Your task to perform on an android device: change timer sound Image 0: 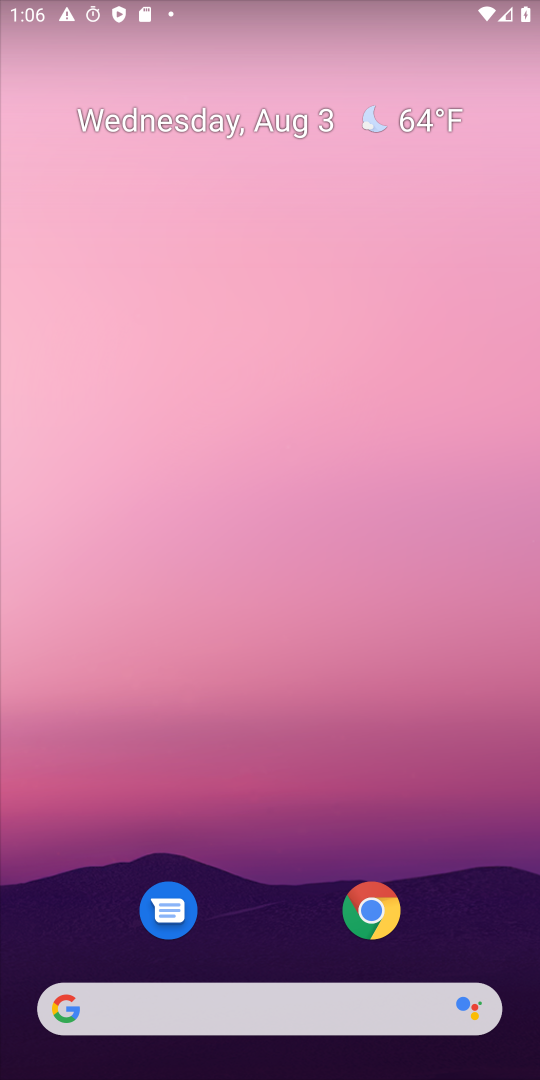
Step 0: drag from (250, 892) to (366, 0)
Your task to perform on an android device: change timer sound Image 1: 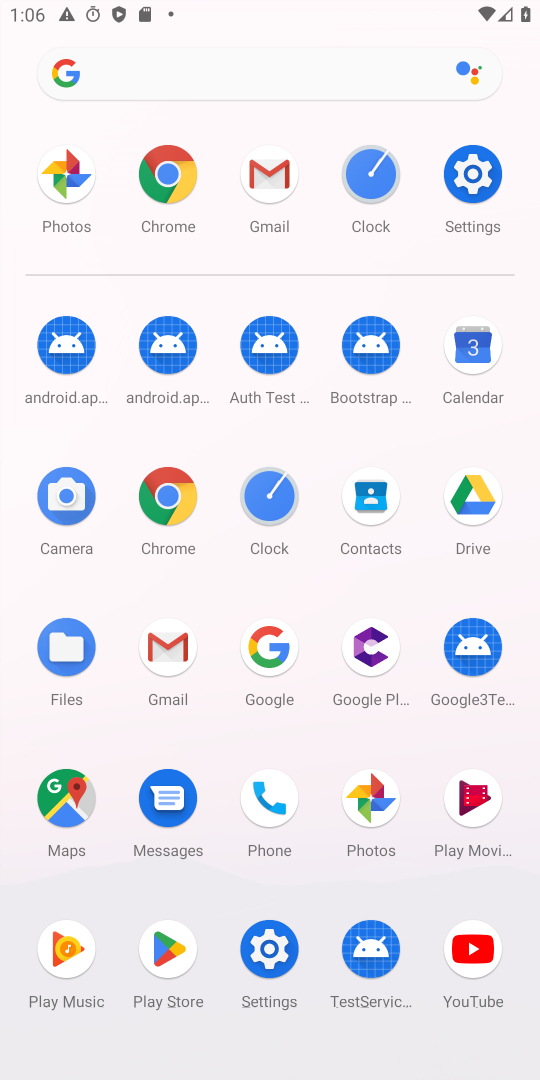
Step 1: click (371, 165)
Your task to perform on an android device: change timer sound Image 2: 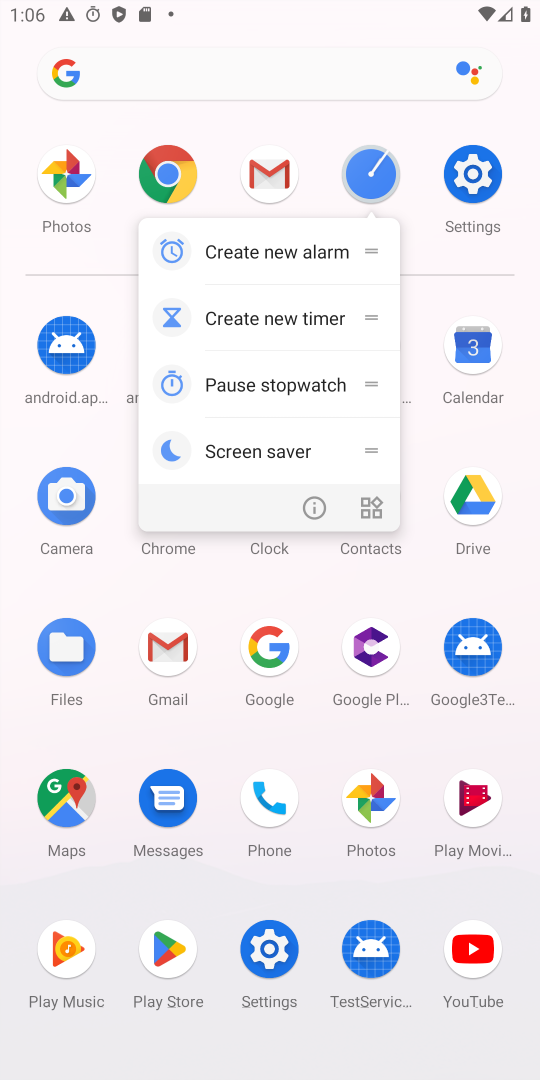
Step 2: click (371, 165)
Your task to perform on an android device: change timer sound Image 3: 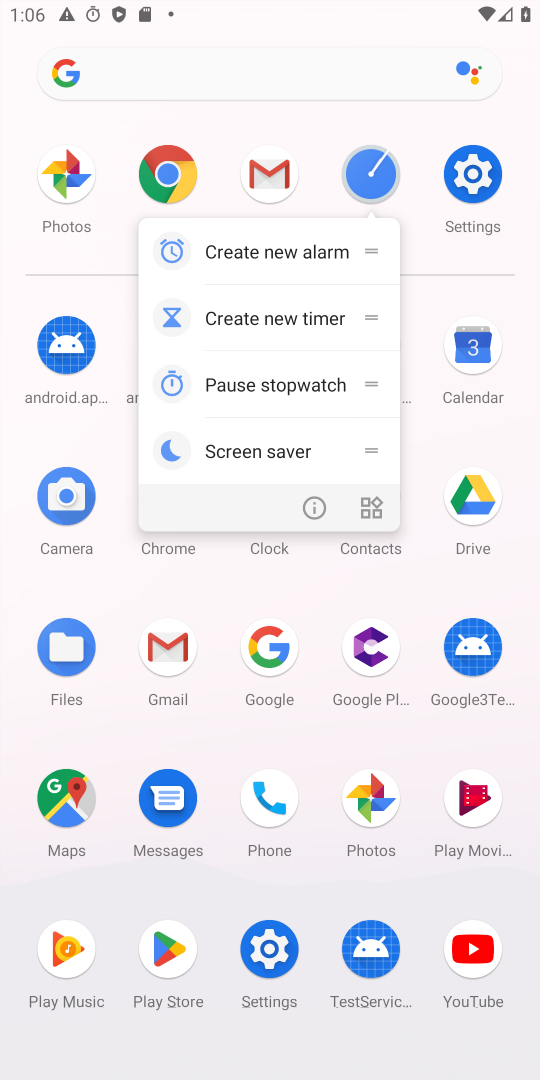
Step 3: click (371, 165)
Your task to perform on an android device: change timer sound Image 4: 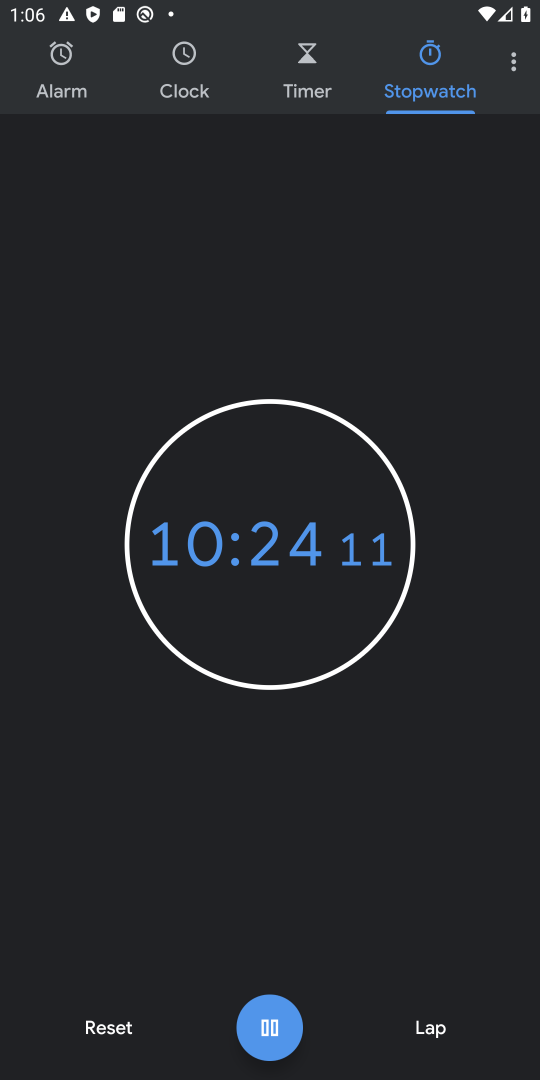
Step 4: click (516, 51)
Your task to perform on an android device: change timer sound Image 5: 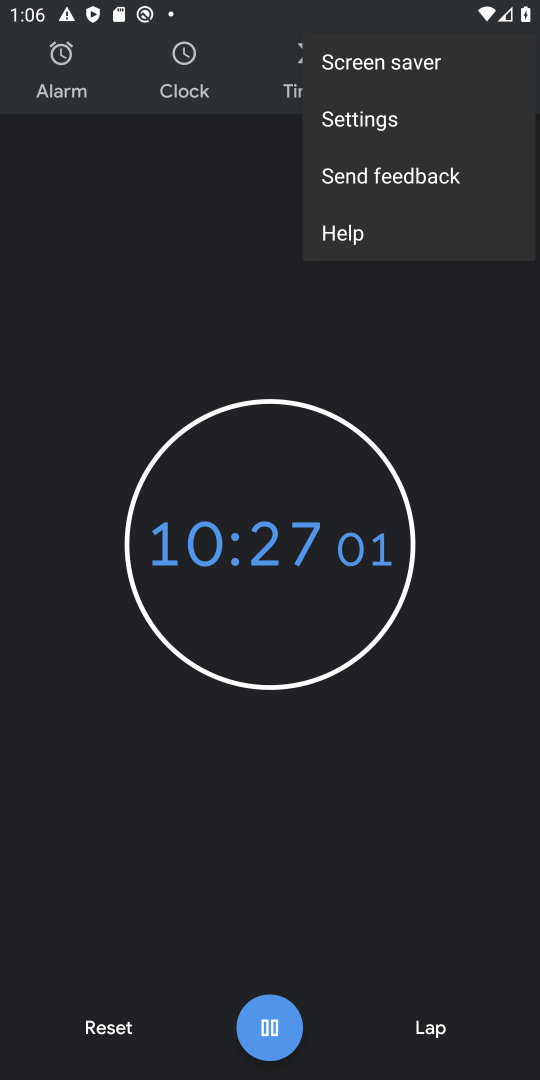
Step 5: click (366, 118)
Your task to perform on an android device: change timer sound Image 6: 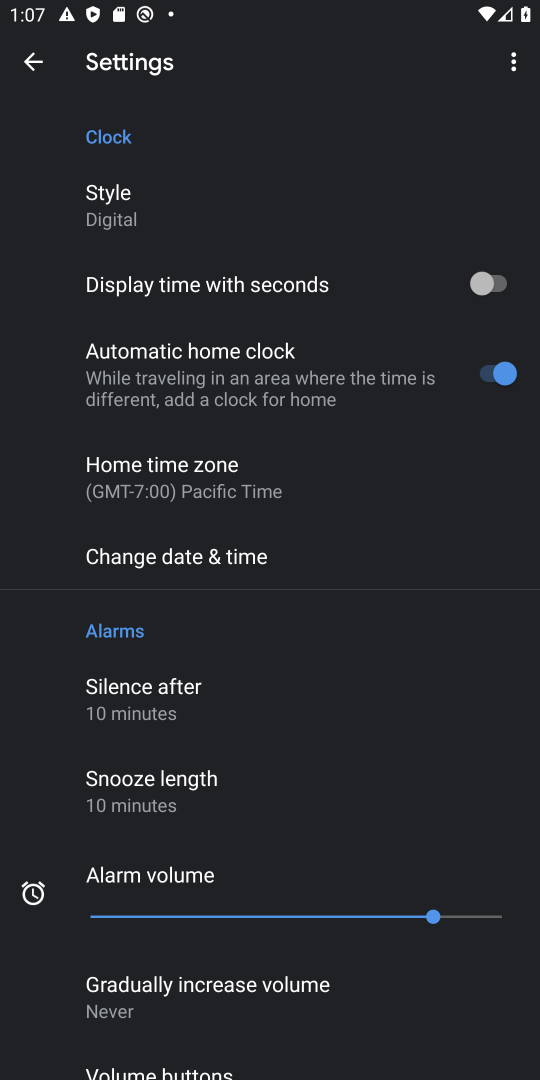
Step 6: drag from (235, 744) to (345, 31)
Your task to perform on an android device: change timer sound Image 7: 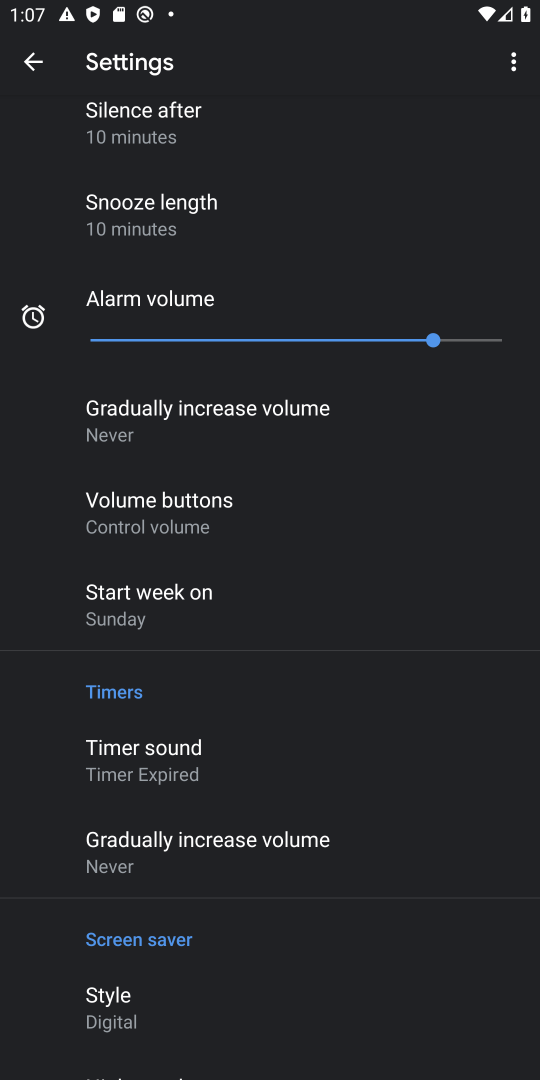
Step 7: click (182, 767)
Your task to perform on an android device: change timer sound Image 8: 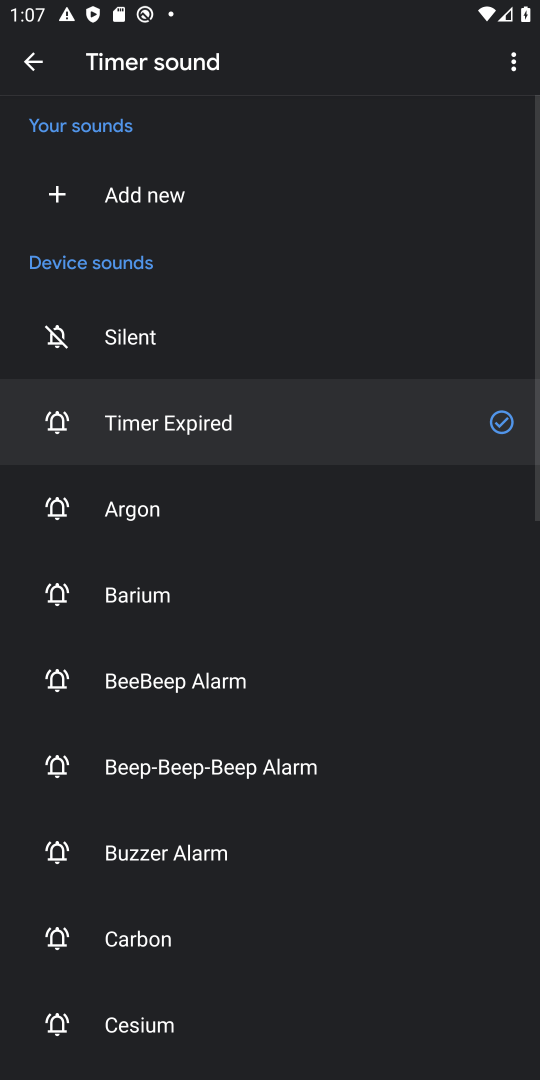
Step 8: click (186, 506)
Your task to perform on an android device: change timer sound Image 9: 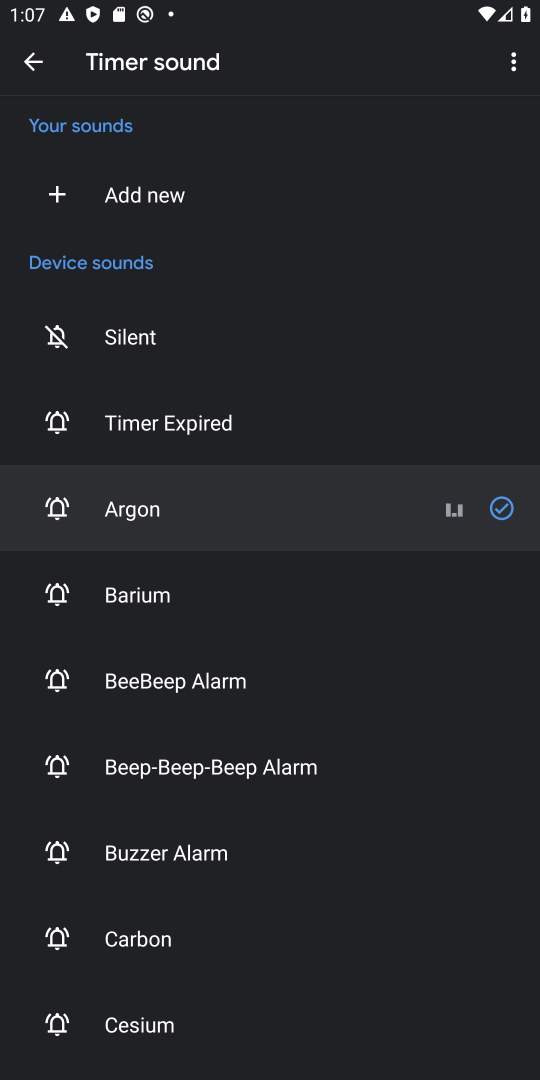
Step 9: task complete